Your task to perform on an android device: set the stopwatch Image 0: 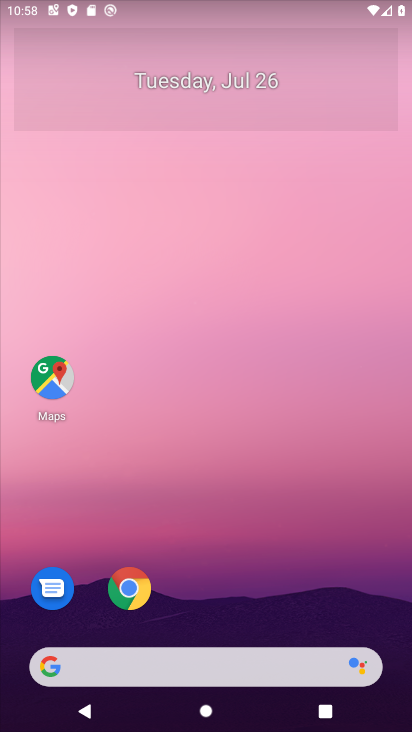
Step 0: drag from (228, 436) to (397, 4)
Your task to perform on an android device: set the stopwatch Image 1: 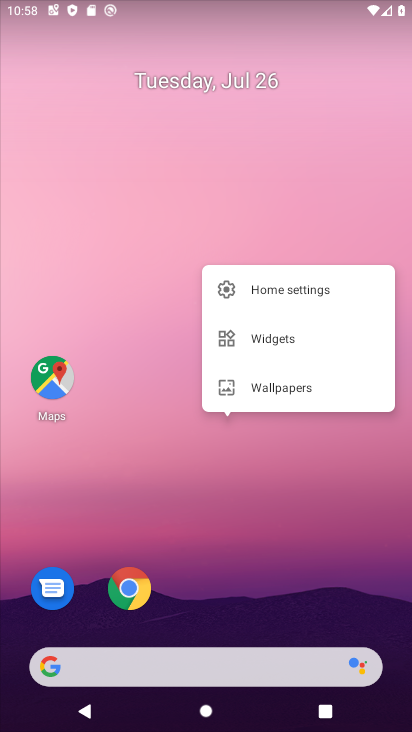
Step 1: click (282, 581)
Your task to perform on an android device: set the stopwatch Image 2: 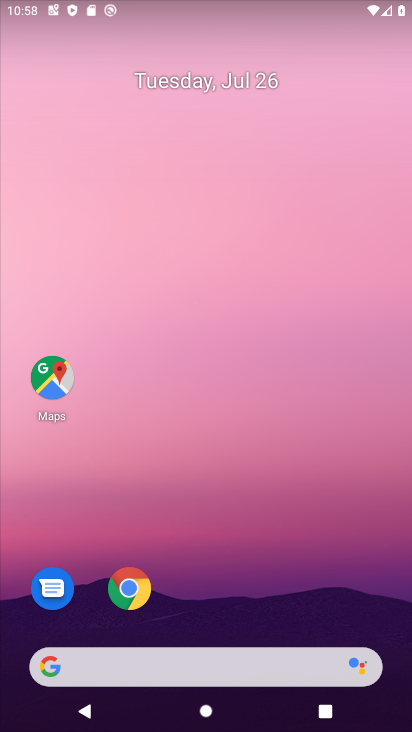
Step 2: drag from (282, 581) to (246, 285)
Your task to perform on an android device: set the stopwatch Image 3: 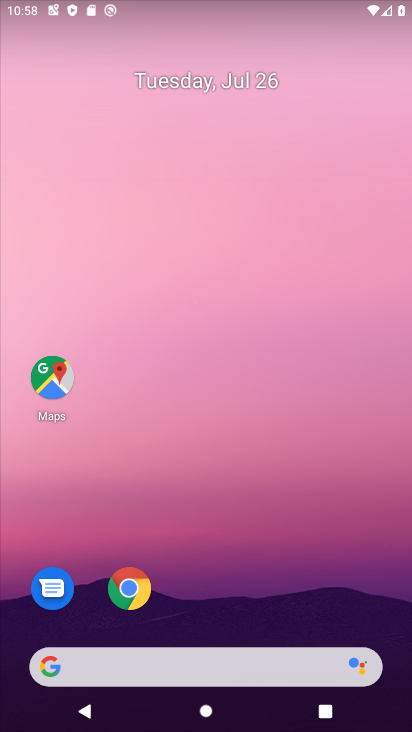
Step 3: drag from (247, 557) to (275, 10)
Your task to perform on an android device: set the stopwatch Image 4: 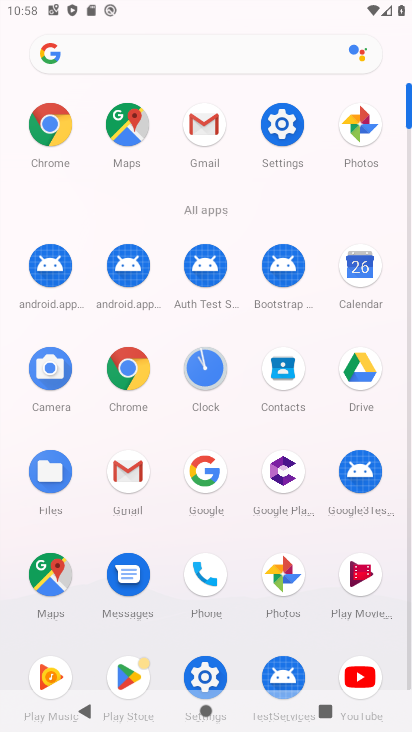
Step 4: click (213, 364)
Your task to perform on an android device: set the stopwatch Image 5: 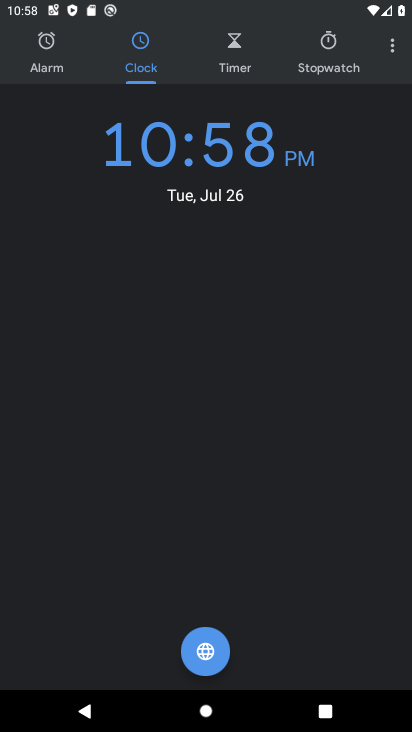
Step 5: click (333, 49)
Your task to perform on an android device: set the stopwatch Image 6: 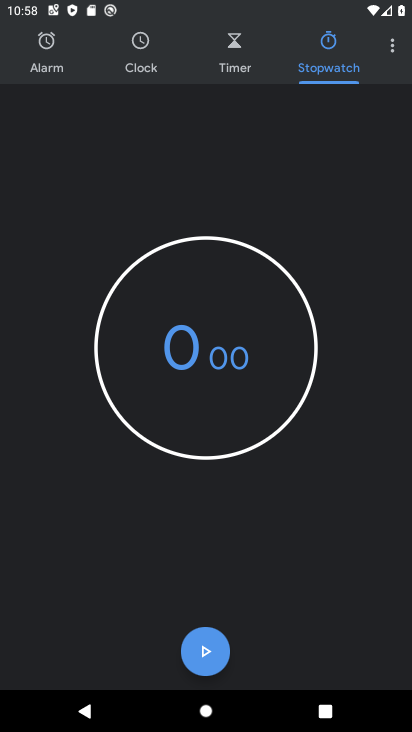
Step 6: task complete